Your task to perform on an android device: Open battery settings Image 0: 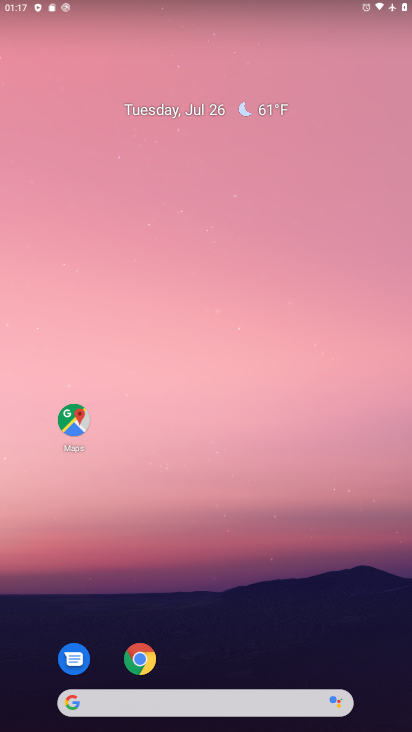
Step 0: drag from (240, 654) to (170, 76)
Your task to perform on an android device: Open battery settings Image 1: 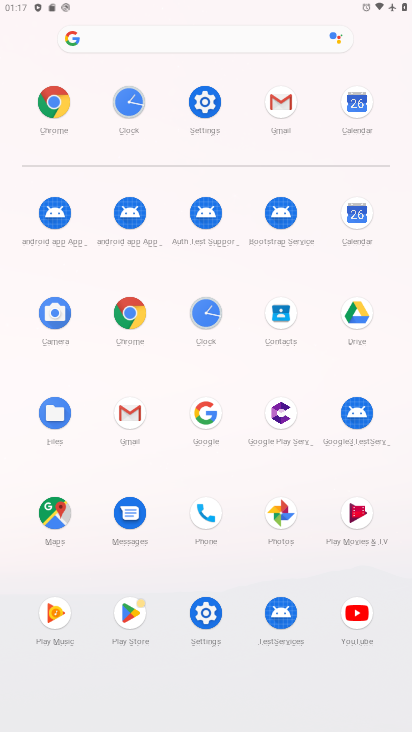
Step 1: click (208, 104)
Your task to perform on an android device: Open battery settings Image 2: 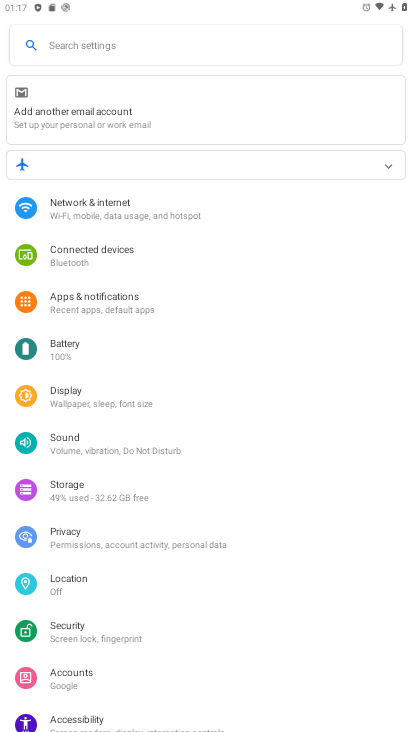
Step 2: click (53, 337)
Your task to perform on an android device: Open battery settings Image 3: 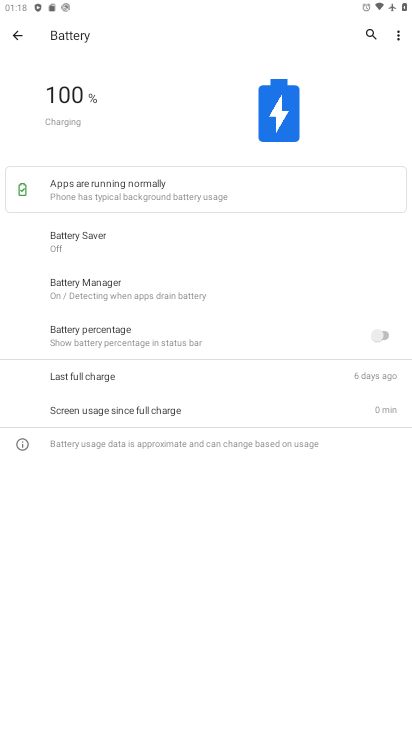
Step 3: task complete